Your task to perform on an android device: What is the news today? Image 0: 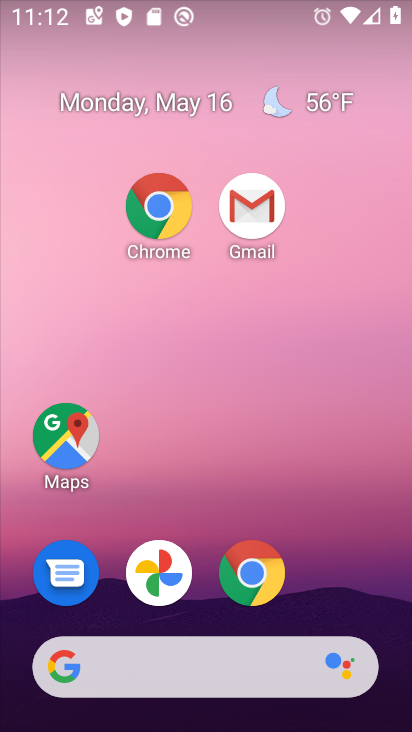
Step 0: drag from (246, 355) to (160, 165)
Your task to perform on an android device: What is the news today? Image 1: 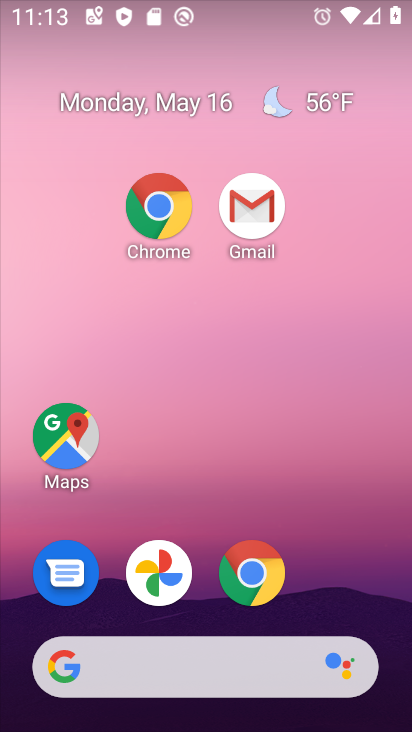
Step 1: task complete